Your task to perform on an android device: open the mobile data screen to see how much data has been used Image 0: 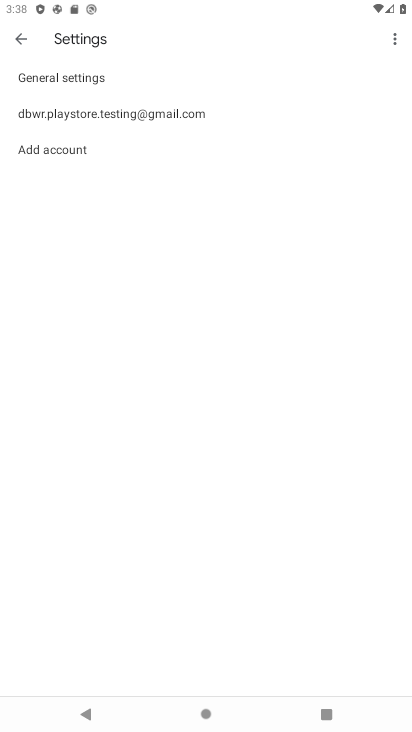
Step 0: press home button
Your task to perform on an android device: open the mobile data screen to see how much data has been used Image 1: 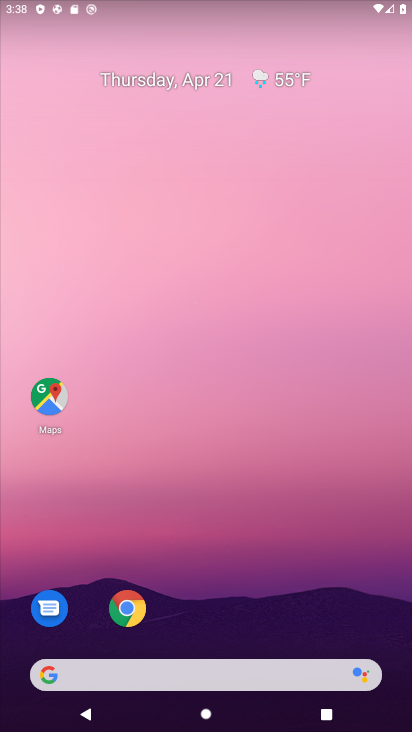
Step 1: drag from (258, 591) to (240, 291)
Your task to perform on an android device: open the mobile data screen to see how much data has been used Image 2: 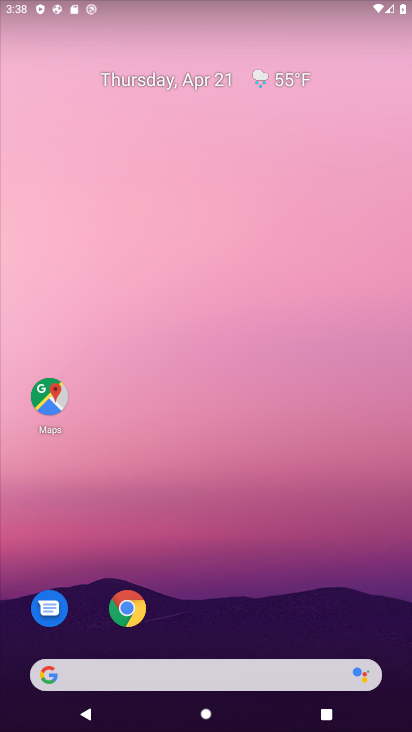
Step 2: drag from (225, 590) to (243, 301)
Your task to perform on an android device: open the mobile data screen to see how much data has been used Image 3: 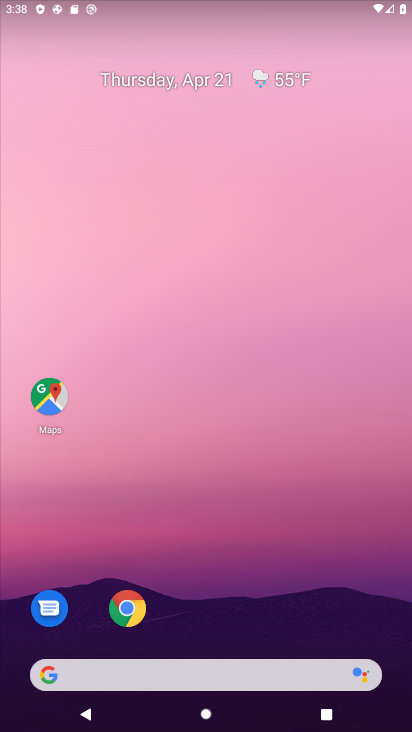
Step 3: drag from (229, 499) to (294, 128)
Your task to perform on an android device: open the mobile data screen to see how much data has been used Image 4: 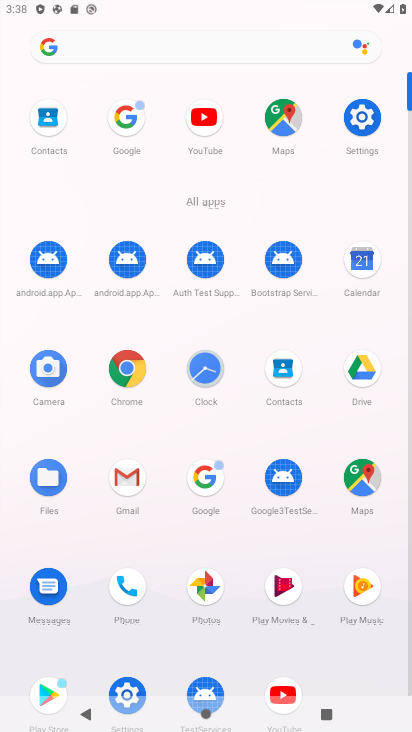
Step 4: click (358, 122)
Your task to perform on an android device: open the mobile data screen to see how much data has been used Image 5: 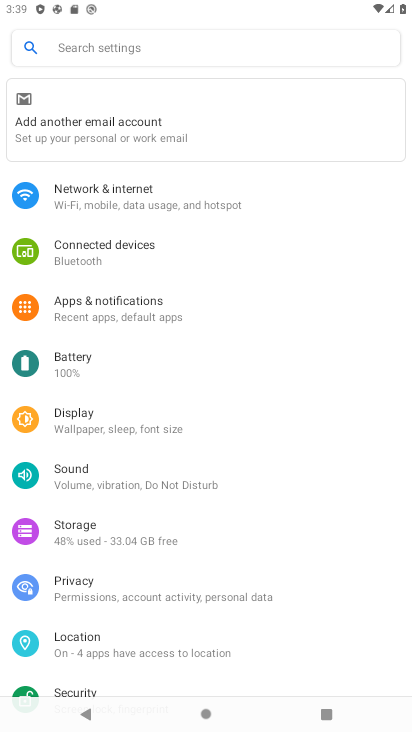
Step 5: click (183, 199)
Your task to perform on an android device: open the mobile data screen to see how much data has been used Image 6: 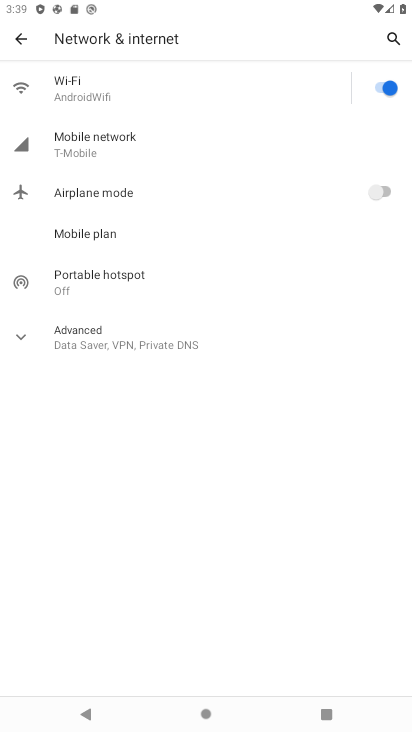
Step 6: click (213, 143)
Your task to perform on an android device: open the mobile data screen to see how much data has been used Image 7: 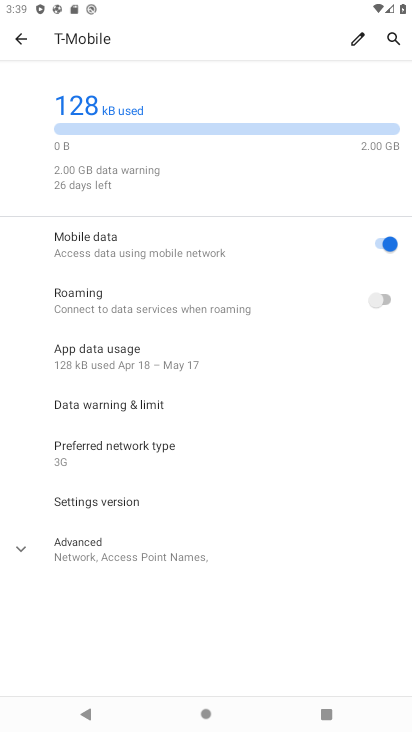
Step 7: click (163, 365)
Your task to perform on an android device: open the mobile data screen to see how much data has been used Image 8: 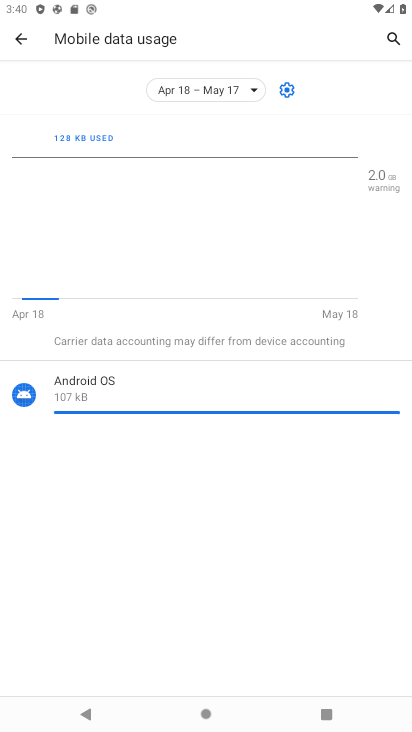
Step 8: task complete